Your task to perform on an android device: Open calendar and show me the first week of next month Image 0: 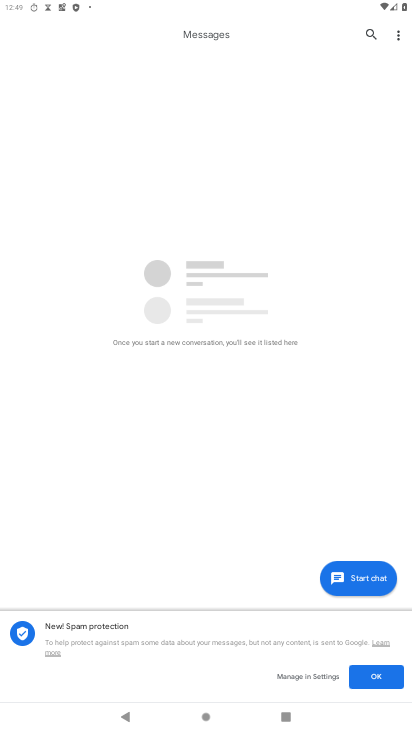
Step 0: press home button
Your task to perform on an android device: Open calendar and show me the first week of next month Image 1: 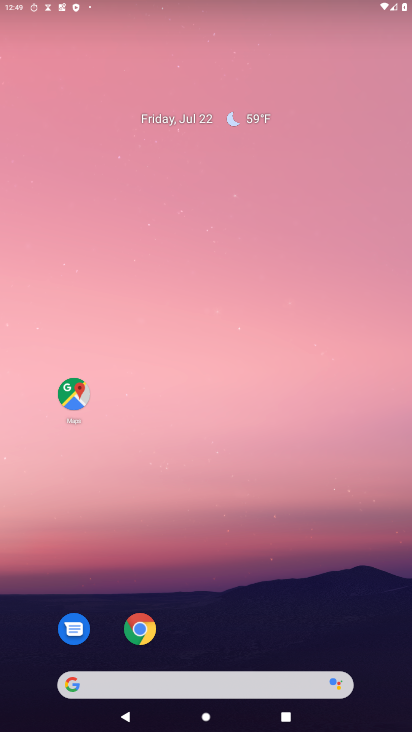
Step 1: drag from (191, 600) to (201, 0)
Your task to perform on an android device: Open calendar and show me the first week of next month Image 2: 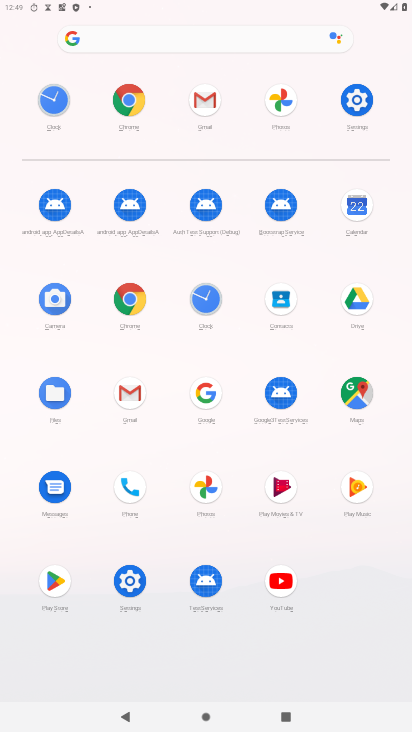
Step 2: click (358, 214)
Your task to perform on an android device: Open calendar and show me the first week of next month Image 3: 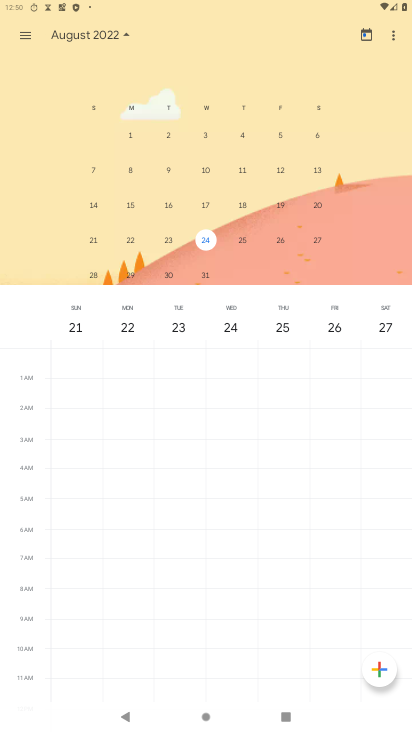
Step 3: click (122, 31)
Your task to perform on an android device: Open calendar and show me the first week of next month Image 4: 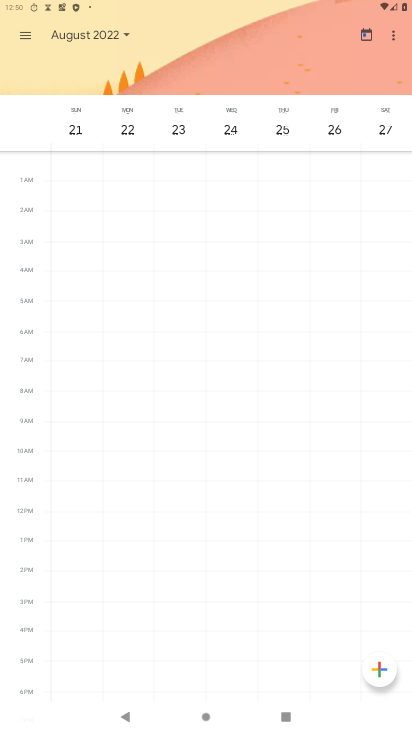
Step 4: click (121, 29)
Your task to perform on an android device: Open calendar and show me the first week of next month Image 5: 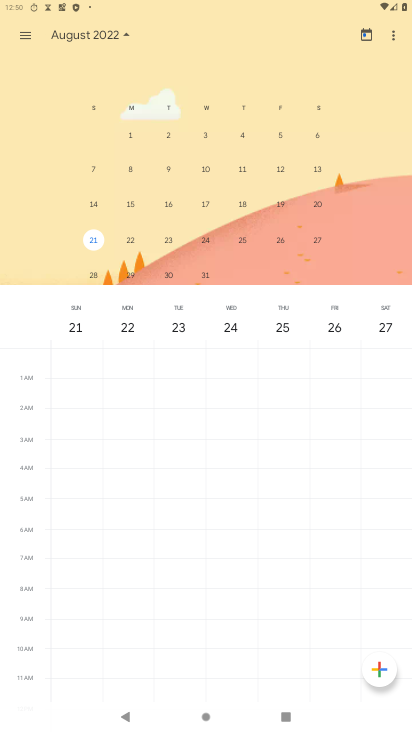
Step 5: click (213, 130)
Your task to perform on an android device: Open calendar and show me the first week of next month Image 6: 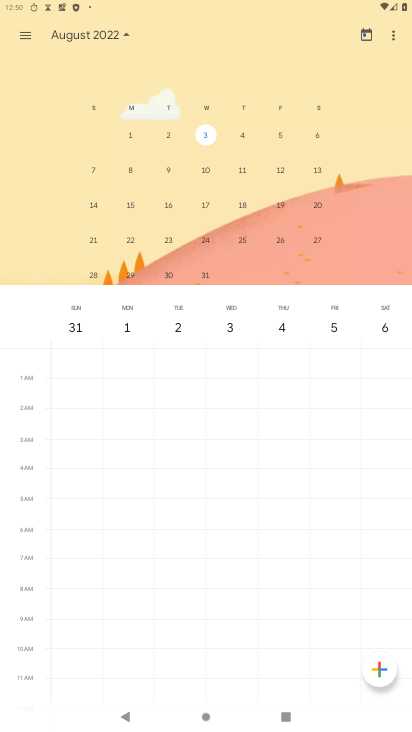
Step 6: task complete